Your task to perform on an android device: toggle location history Image 0: 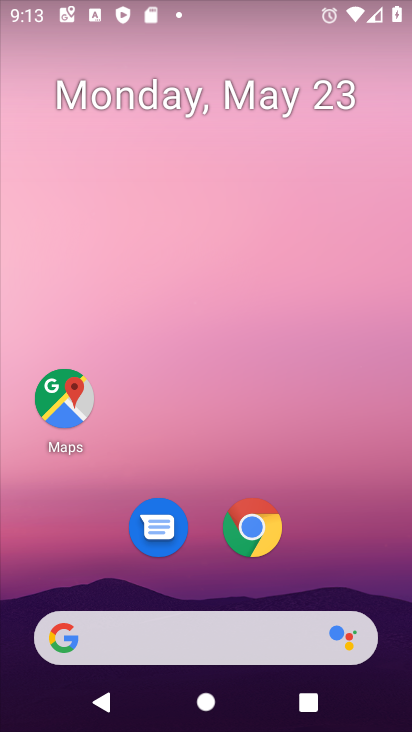
Step 0: drag from (335, 435) to (260, 7)
Your task to perform on an android device: toggle location history Image 1: 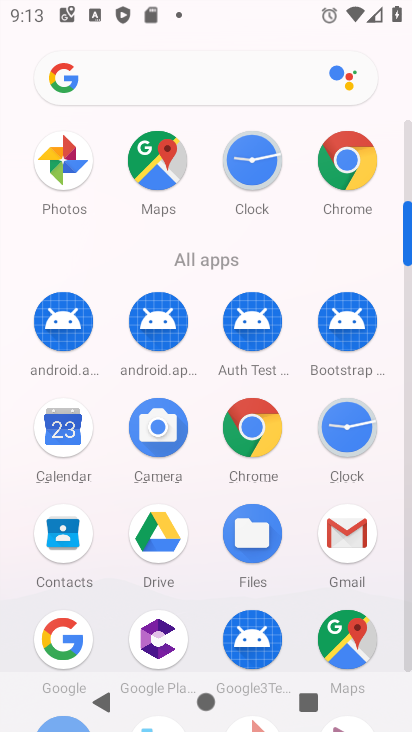
Step 1: drag from (26, 570) to (37, 233)
Your task to perform on an android device: toggle location history Image 2: 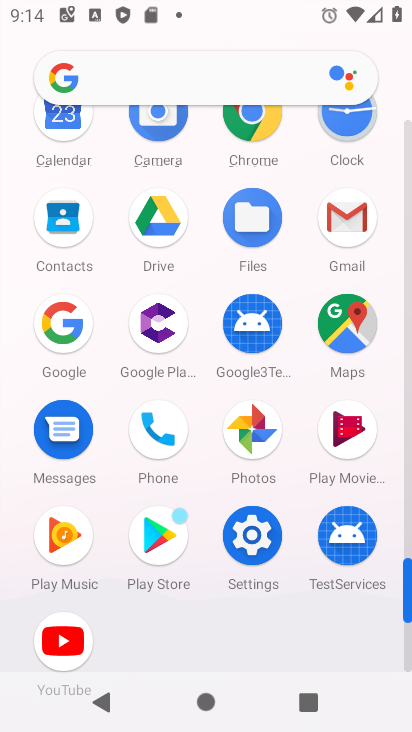
Step 2: click (253, 534)
Your task to perform on an android device: toggle location history Image 3: 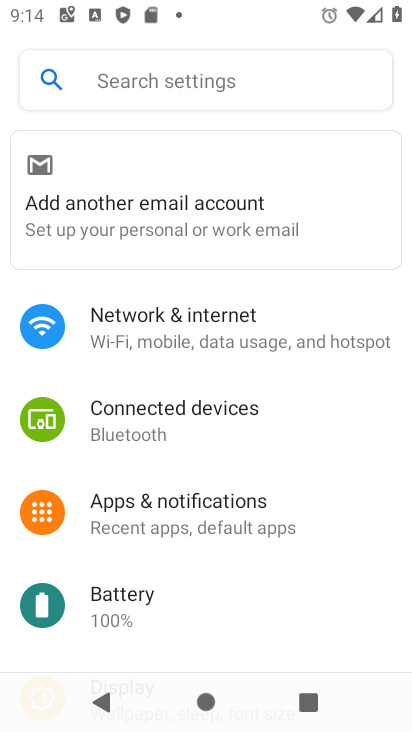
Step 3: drag from (346, 594) to (327, 116)
Your task to perform on an android device: toggle location history Image 4: 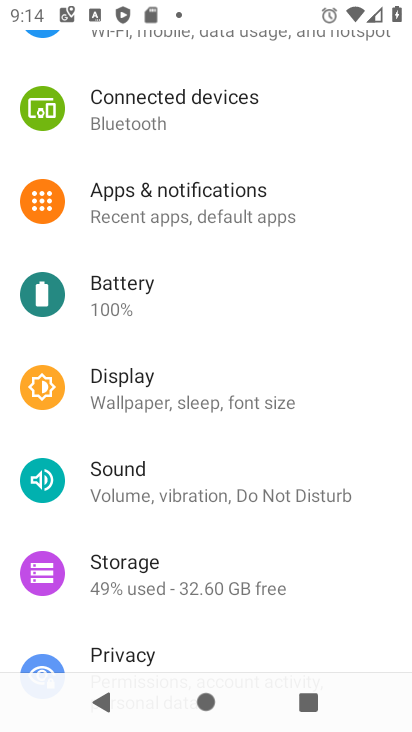
Step 4: drag from (293, 554) to (293, 102)
Your task to perform on an android device: toggle location history Image 5: 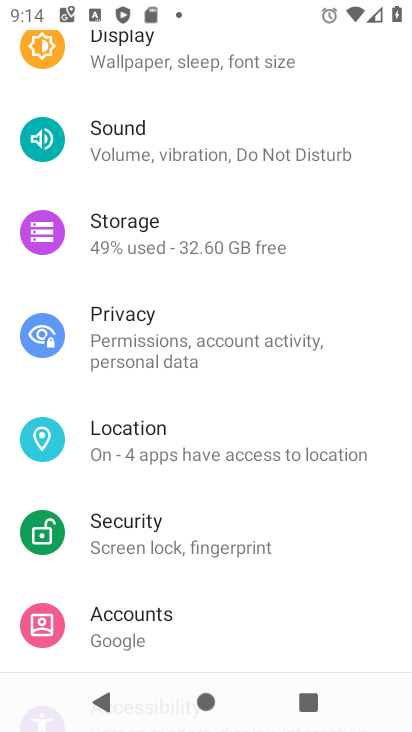
Step 5: drag from (295, 567) to (314, 61)
Your task to perform on an android device: toggle location history Image 6: 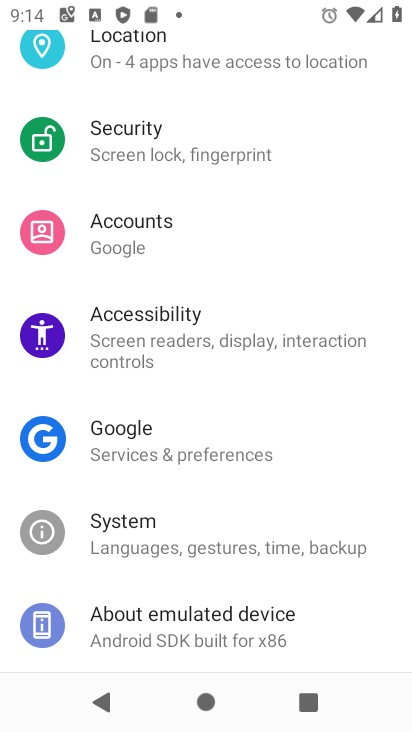
Step 6: drag from (301, 151) to (301, 509)
Your task to perform on an android device: toggle location history Image 7: 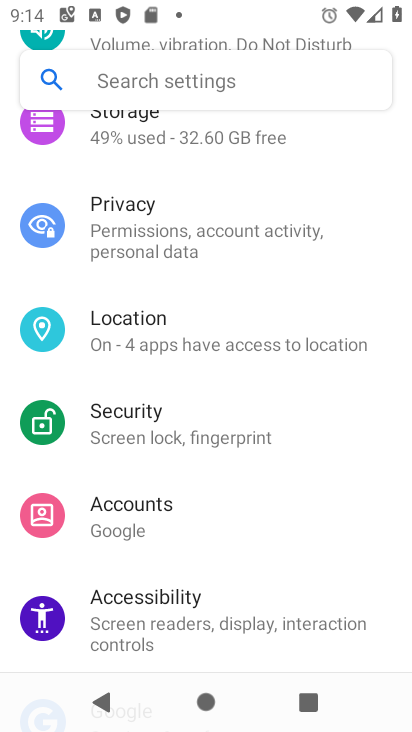
Step 7: click (167, 317)
Your task to perform on an android device: toggle location history Image 8: 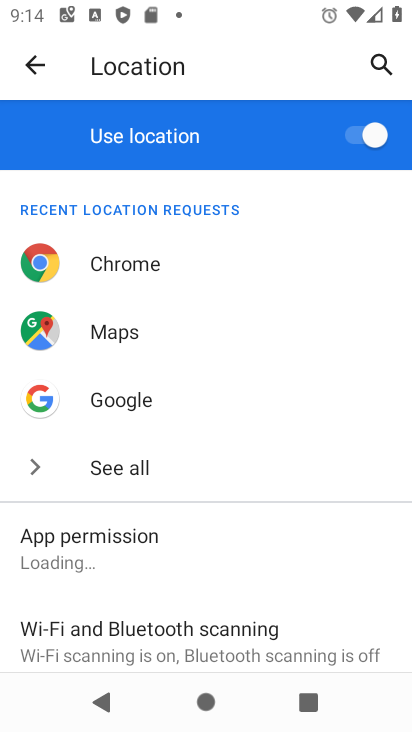
Step 8: drag from (325, 604) to (341, 200)
Your task to perform on an android device: toggle location history Image 9: 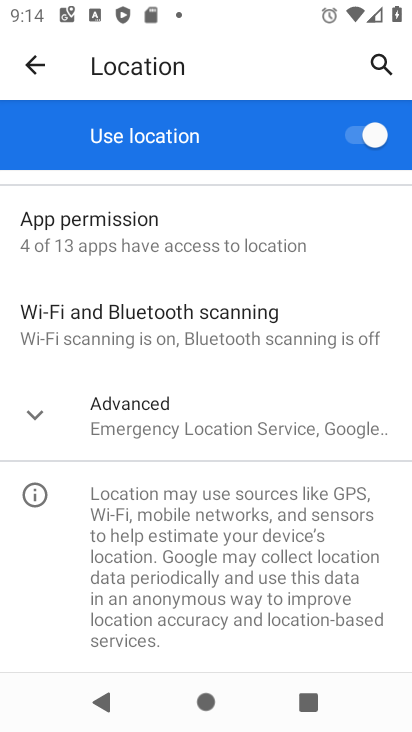
Step 9: click (38, 412)
Your task to perform on an android device: toggle location history Image 10: 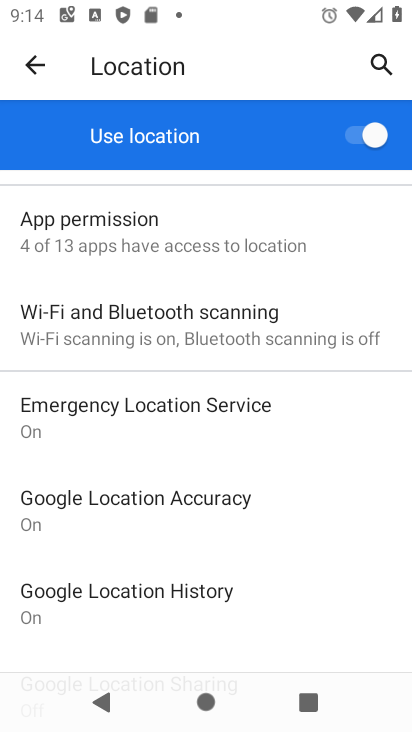
Step 10: click (204, 587)
Your task to perform on an android device: toggle location history Image 11: 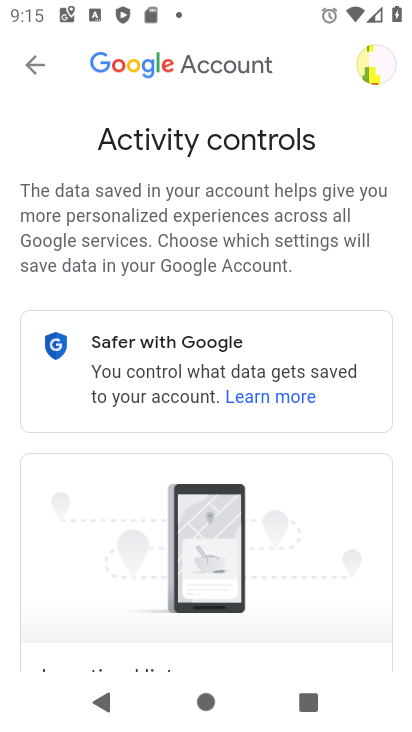
Step 11: drag from (118, 565) to (185, 96)
Your task to perform on an android device: toggle location history Image 12: 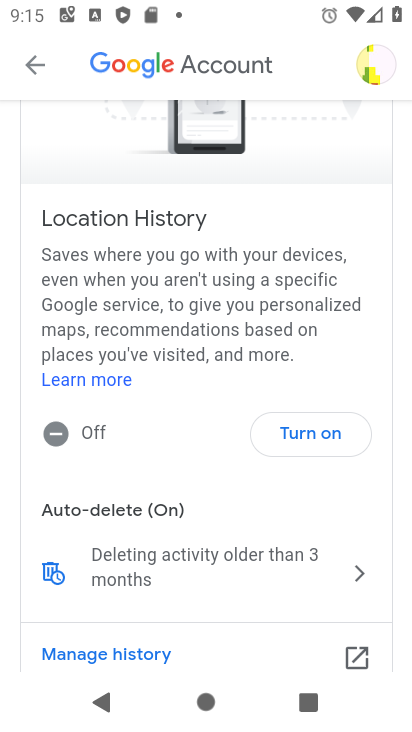
Step 12: drag from (130, 541) to (152, 136)
Your task to perform on an android device: toggle location history Image 13: 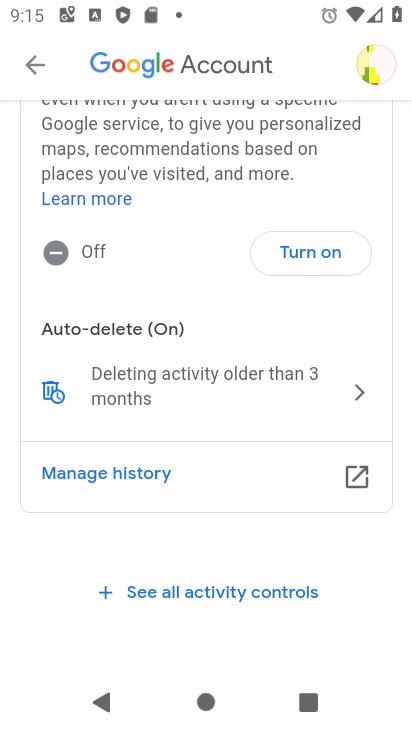
Step 13: click (302, 243)
Your task to perform on an android device: toggle location history Image 14: 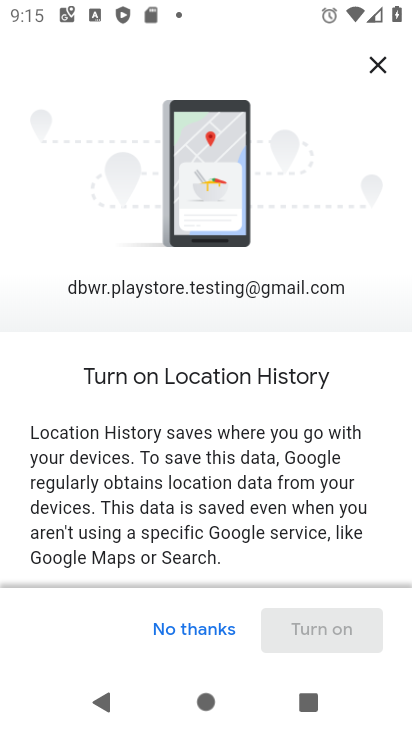
Step 14: drag from (331, 488) to (346, 142)
Your task to perform on an android device: toggle location history Image 15: 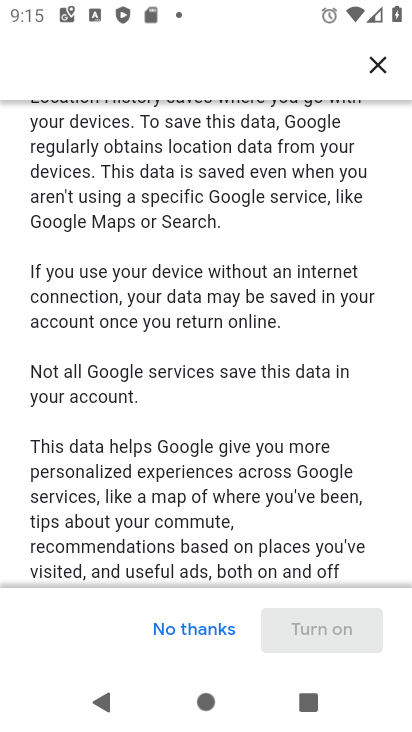
Step 15: drag from (226, 490) to (294, 72)
Your task to perform on an android device: toggle location history Image 16: 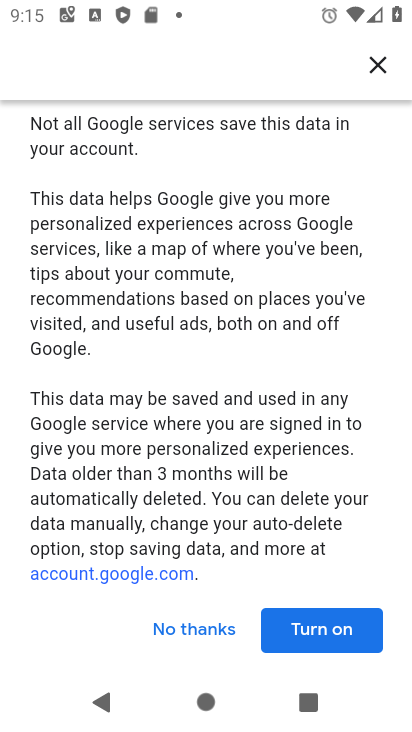
Step 16: drag from (236, 376) to (296, 84)
Your task to perform on an android device: toggle location history Image 17: 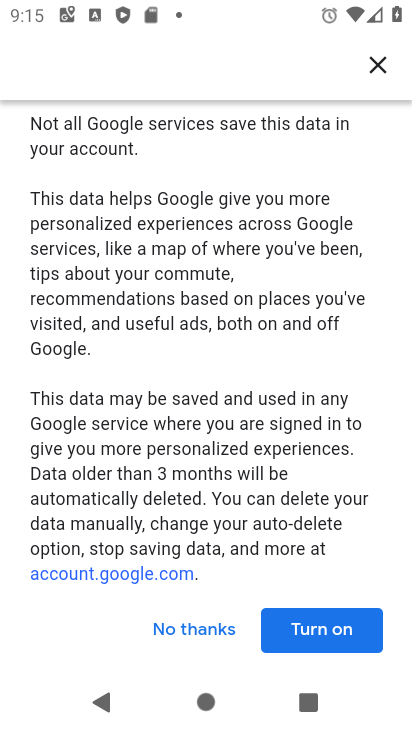
Step 17: click (307, 628)
Your task to perform on an android device: toggle location history Image 18: 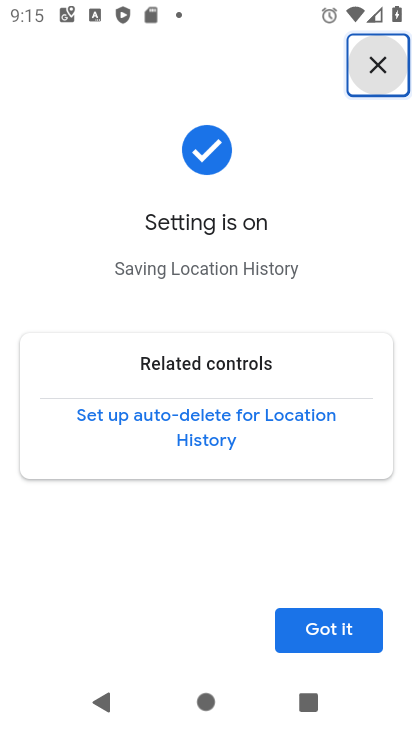
Step 18: task complete